Your task to perform on an android device: turn off sleep mode Image 0: 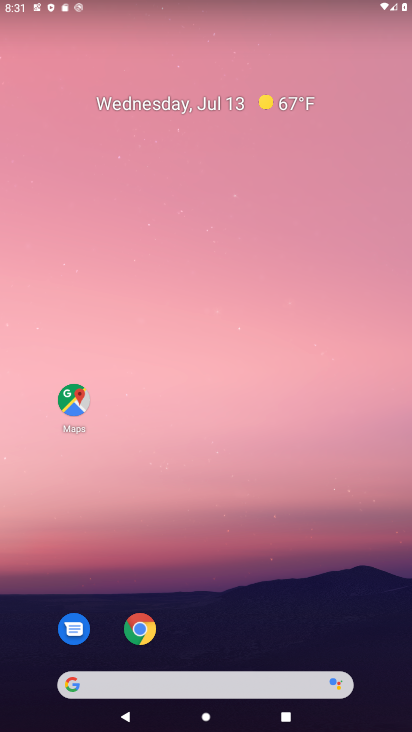
Step 0: drag from (218, 564) to (164, 1)
Your task to perform on an android device: turn off sleep mode Image 1: 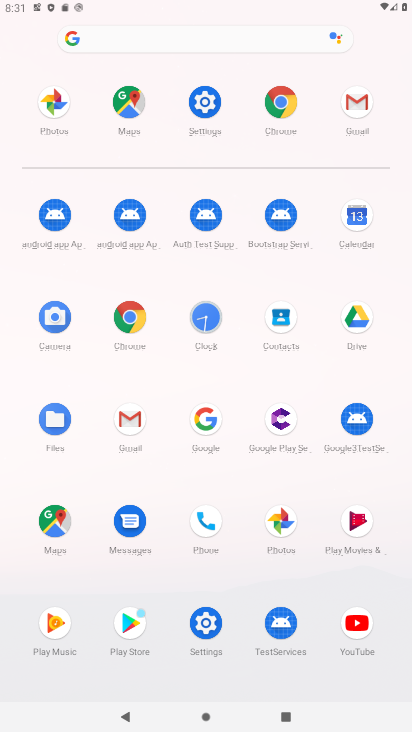
Step 1: click (203, 635)
Your task to perform on an android device: turn off sleep mode Image 2: 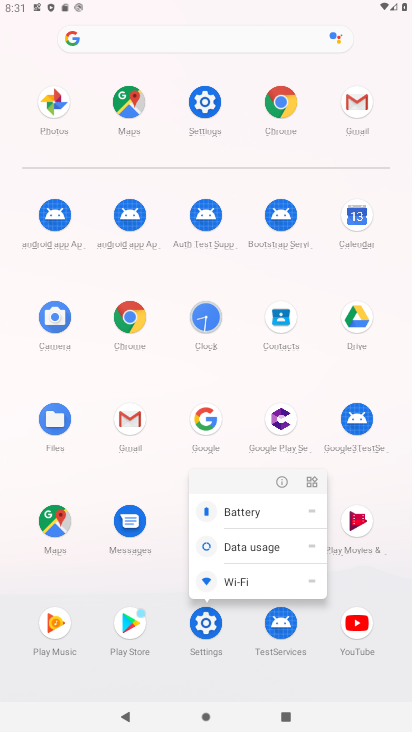
Step 2: click (209, 631)
Your task to perform on an android device: turn off sleep mode Image 3: 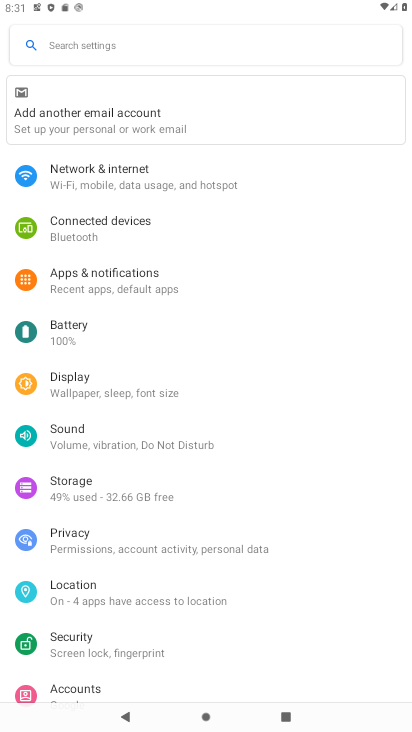
Step 3: click (178, 51)
Your task to perform on an android device: turn off sleep mode Image 4: 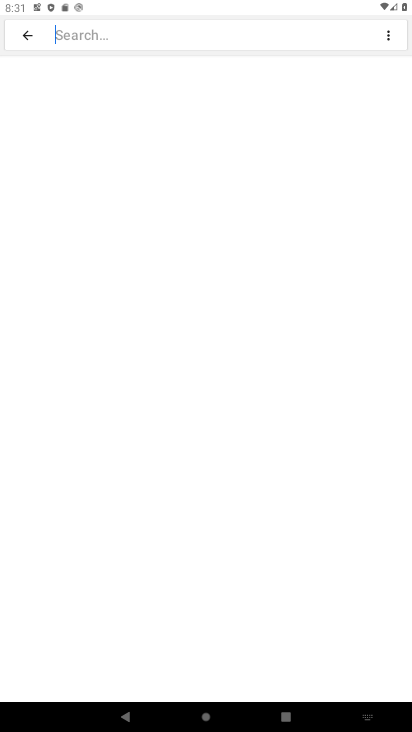
Step 4: type "sleep"
Your task to perform on an android device: turn off sleep mode Image 5: 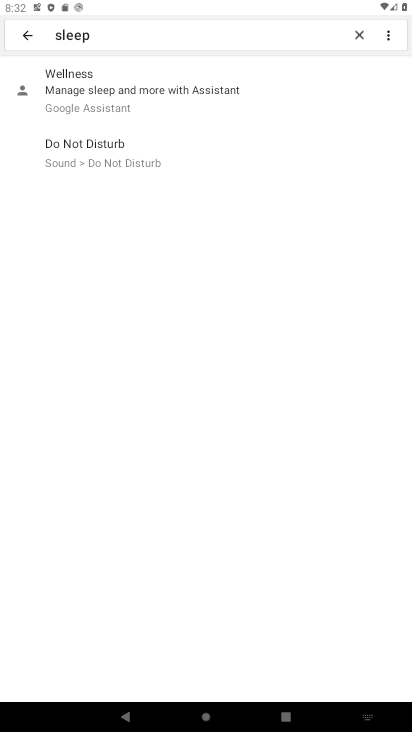
Step 5: type " mode"
Your task to perform on an android device: turn off sleep mode Image 6: 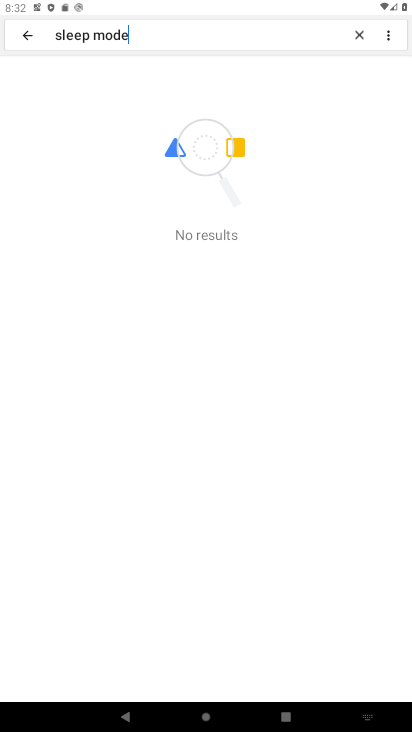
Step 6: task complete